Your task to perform on an android device: turn on javascript in the chrome app Image 0: 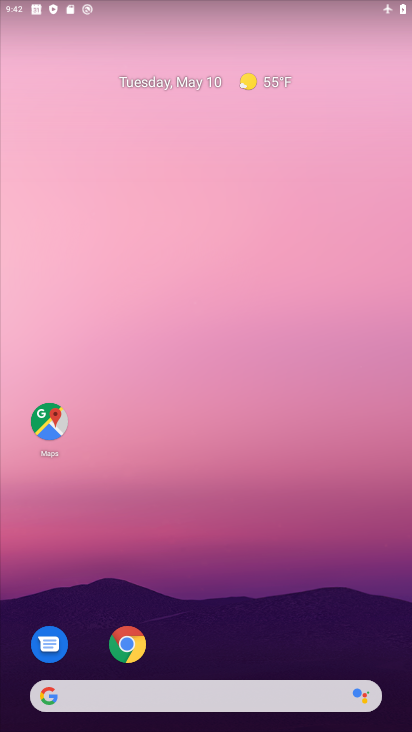
Step 0: drag from (263, 584) to (314, 170)
Your task to perform on an android device: turn on javascript in the chrome app Image 1: 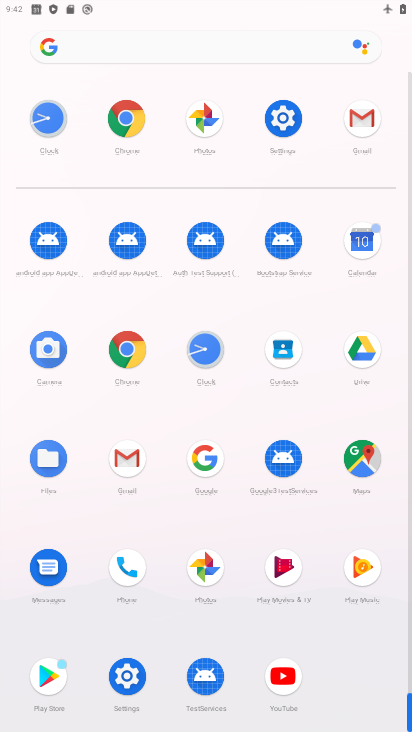
Step 1: click (138, 344)
Your task to perform on an android device: turn on javascript in the chrome app Image 2: 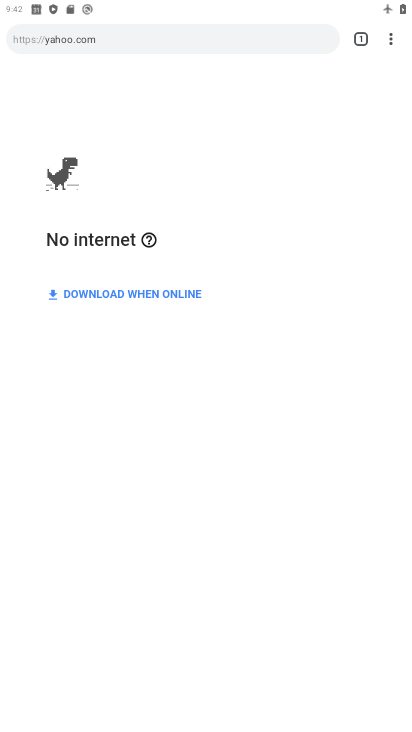
Step 2: click (386, 44)
Your task to perform on an android device: turn on javascript in the chrome app Image 3: 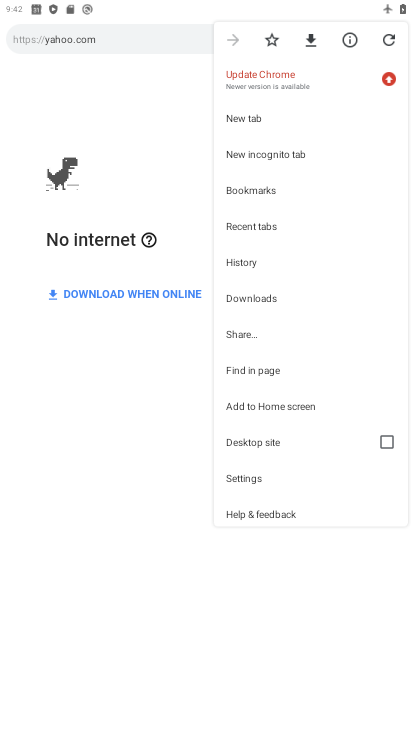
Step 3: click (283, 475)
Your task to perform on an android device: turn on javascript in the chrome app Image 4: 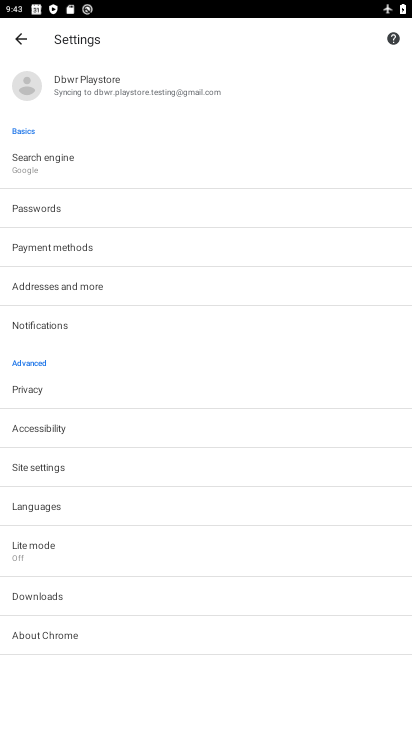
Step 4: click (143, 474)
Your task to perform on an android device: turn on javascript in the chrome app Image 5: 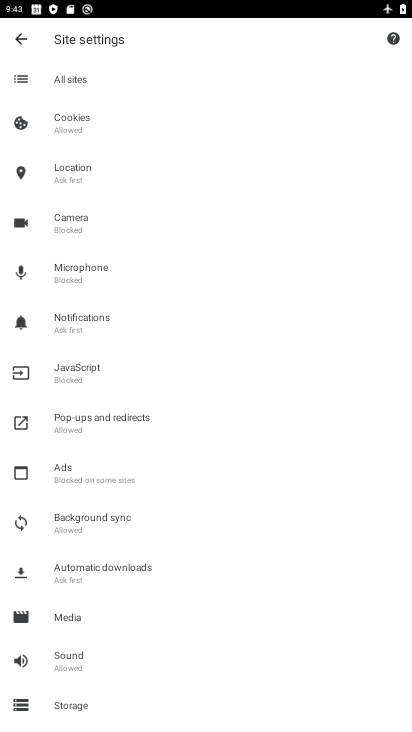
Step 5: click (136, 369)
Your task to perform on an android device: turn on javascript in the chrome app Image 6: 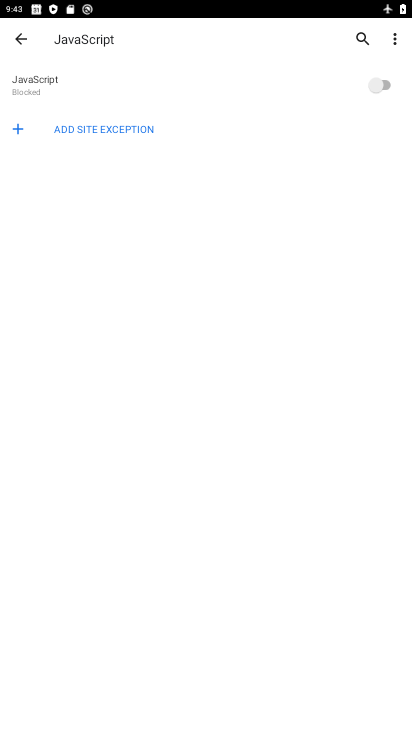
Step 6: click (385, 94)
Your task to perform on an android device: turn on javascript in the chrome app Image 7: 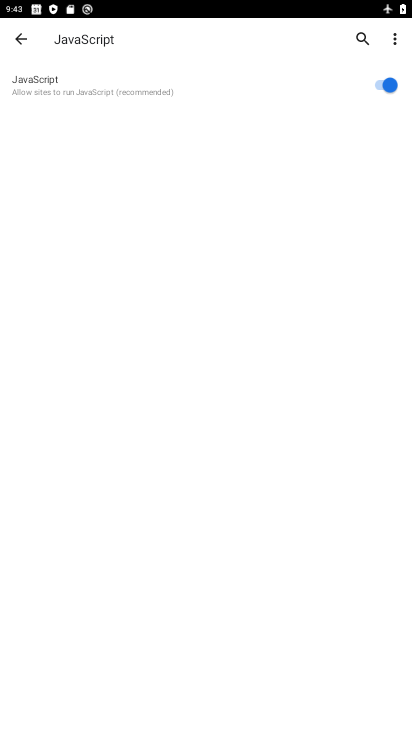
Step 7: task complete